Your task to perform on an android device: change keyboard looks Image 0: 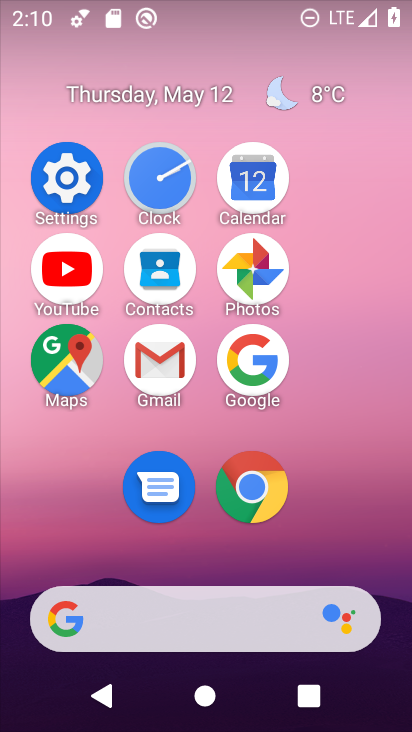
Step 0: click (54, 187)
Your task to perform on an android device: change keyboard looks Image 1: 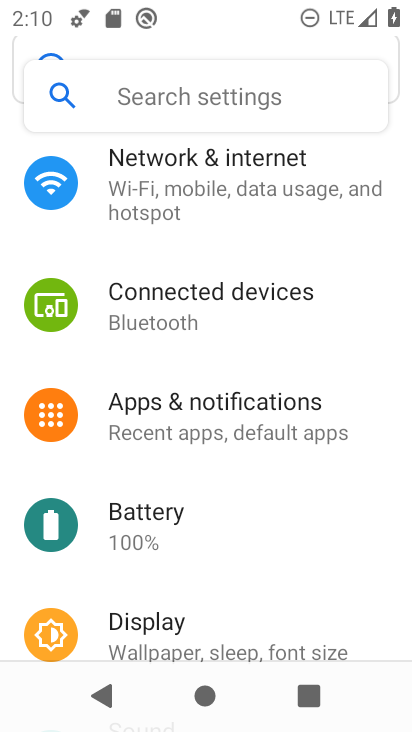
Step 1: drag from (287, 606) to (310, 131)
Your task to perform on an android device: change keyboard looks Image 2: 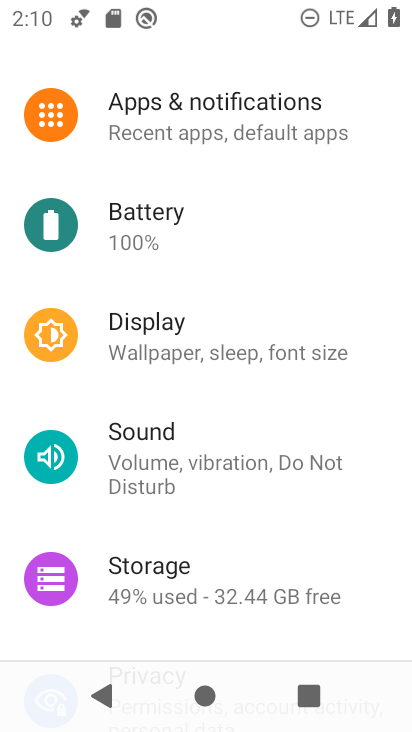
Step 2: drag from (277, 588) to (289, 205)
Your task to perform on an android device: change keyboard looks Image 3: 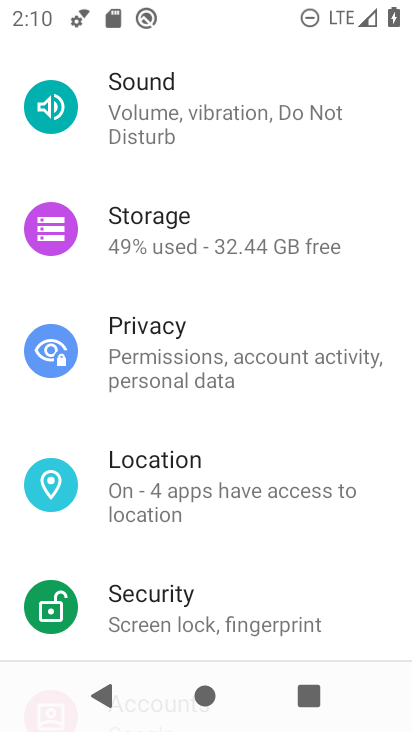
Step 3: drag from (243, 559) to (239, 92)
Your task to perform on an android device: change keyboard looks Image 4: 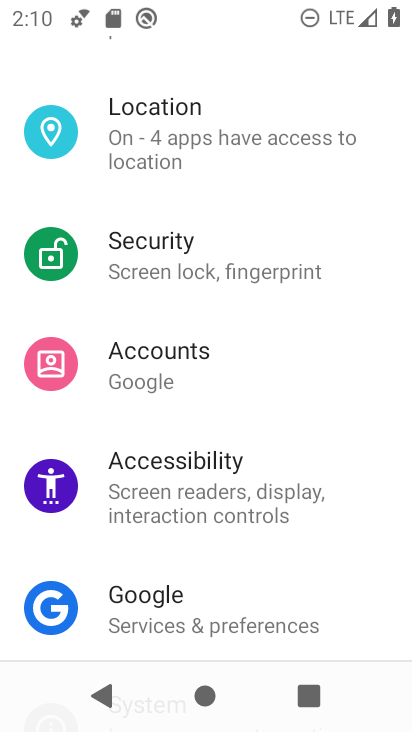
Step 4: drag from (308, 546) to (326, 166)
Your task to perform on an android device: change keyboard looks Image 5: 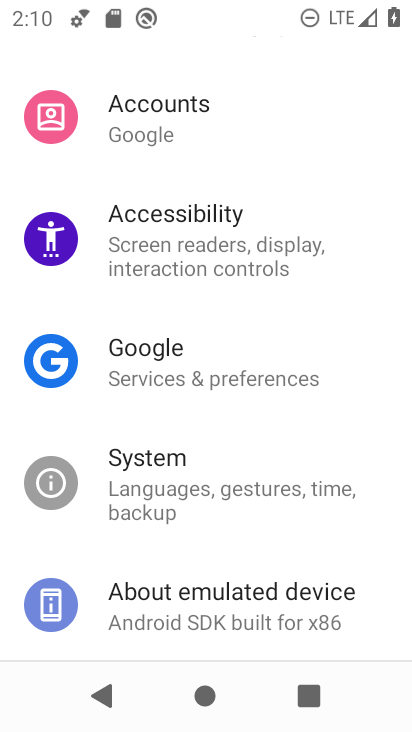
Step 5: click (171, 496)
Your task to perform on an android device: change keyboard looks Image 6: 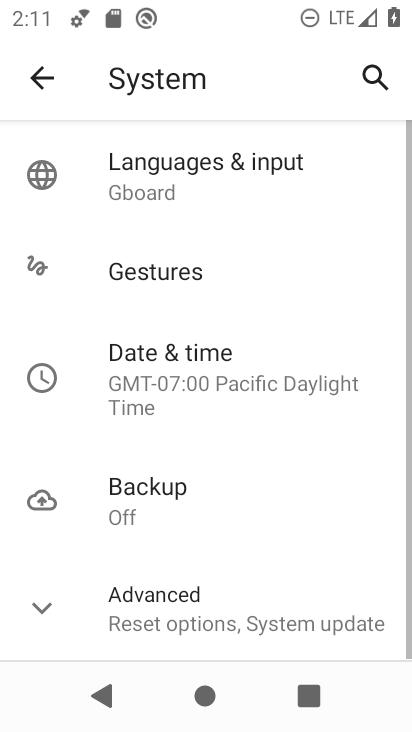
Step 6: click (192, 198)
Your task to perform on an android device: change keyboard looks Image 7: 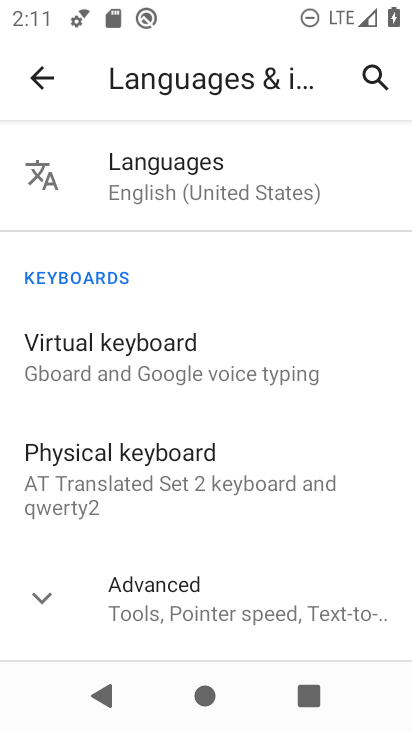
Step 7: click (236, 369)
Your task to perform on an android device: change keyboard looks Image 8: 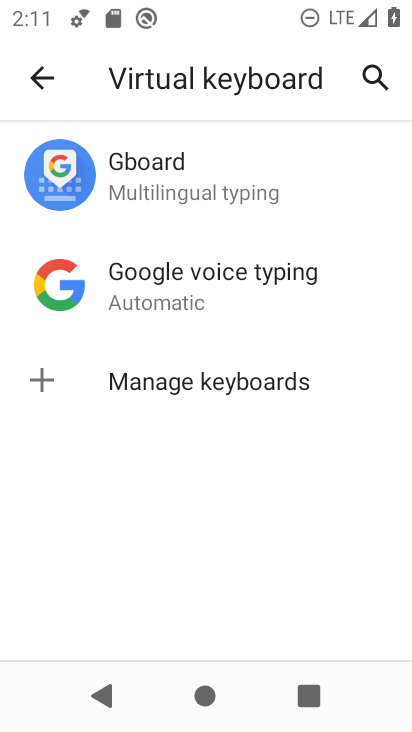
Step 8: click (171, 188)
Your task to perform on an android device: change keyboard looks Image 9: 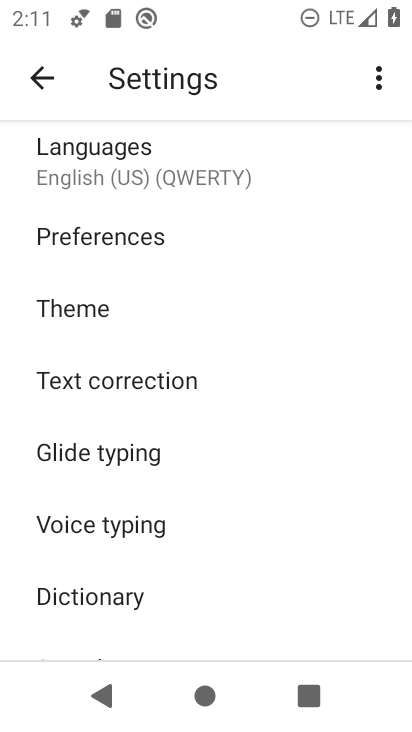
Step 9: click (147, 318)
Your task to perform on an android device: change keyboard looks Image 10: 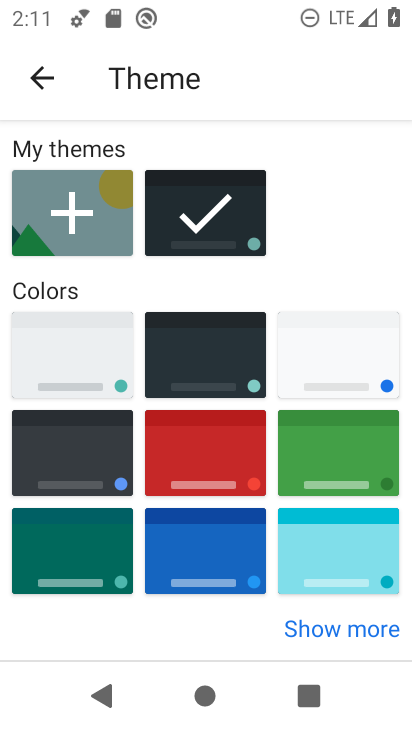
Step 10: click (259, 386)
Your task to perform on an android device: change keyboard looks Image 11: 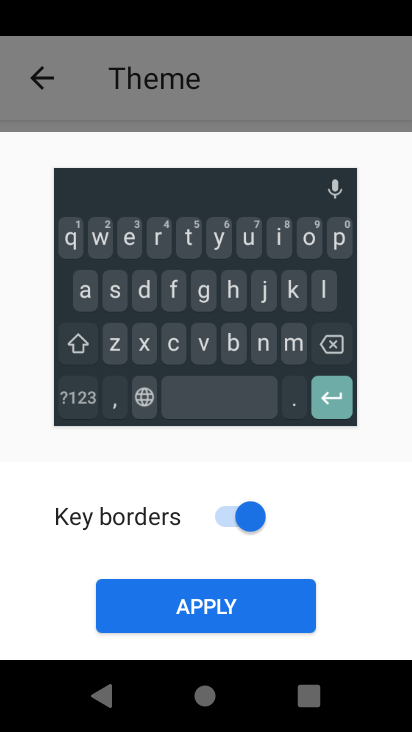
Step 11: click (240, 597)
Your task to perform on an android device: change keyboard looks Image 12: 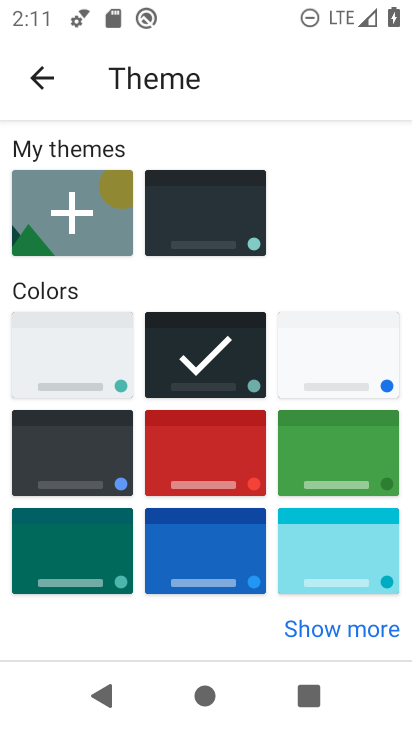
Step 12: task complete